Your task to perform on an android device: Search for seafood restaurants on Google Maps Image 0: 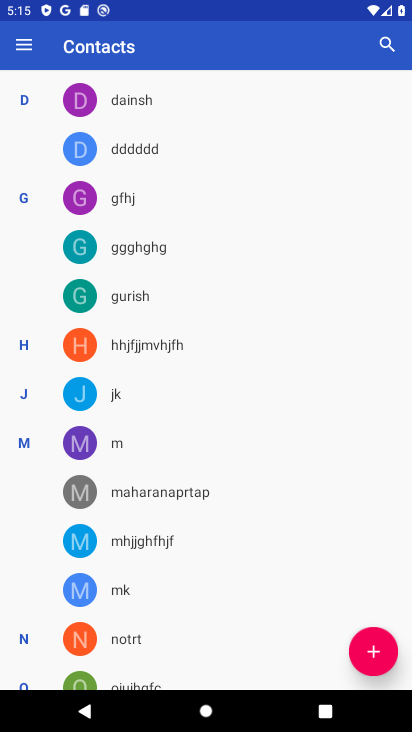
Step 0: press home button
Your task to perform on an android device: Search for seafood restaurants on Google Maps Image 1: 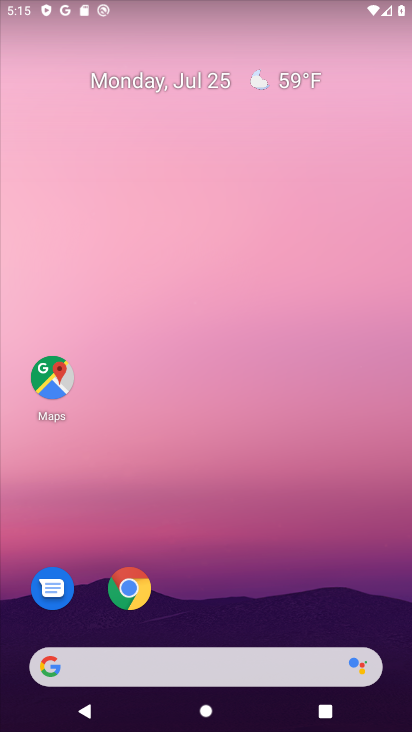
Step 1: click (55, 381)
Your task to perform on an android device: Search for seafood restaurants on Google Maps Image 2: 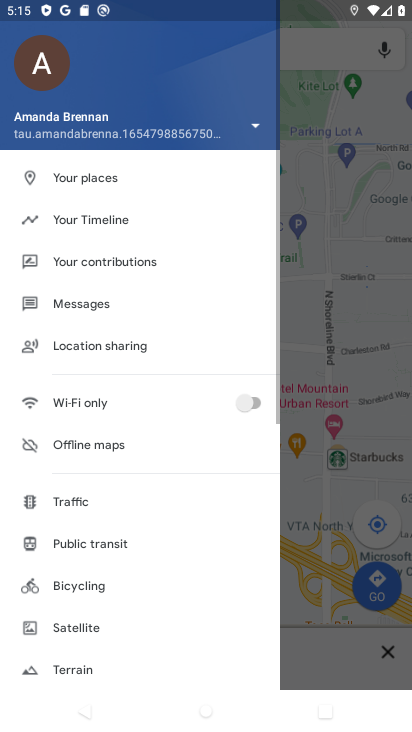
Step 2: click (315, 167)
Your task to perform on an android device: Search for seafood restaurants on Google Maps Image 3: 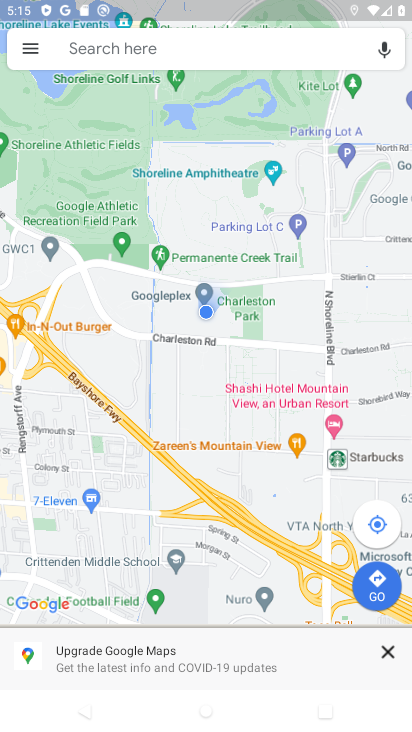
Step 3: click (214, 50)
Your task to perform on an android device: Search for seafood restaurants on Google Maps Image 4: 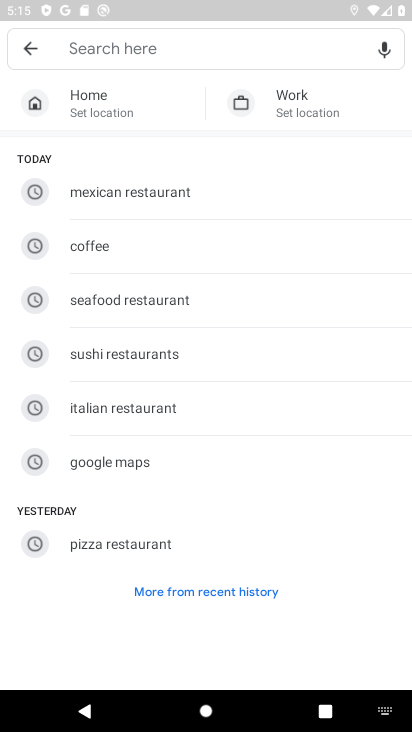
Step 4: type " seafood restaurants "
Your task to perform on an android device: Search for seafood restaurants on Google Maps Image 5: 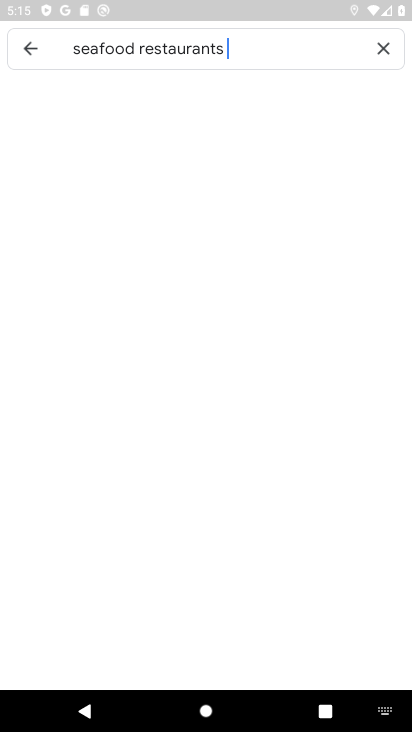
Step 5: press enter
Your task to perform on an android device: Search for seafood restaurants on Google Maps Image 6: 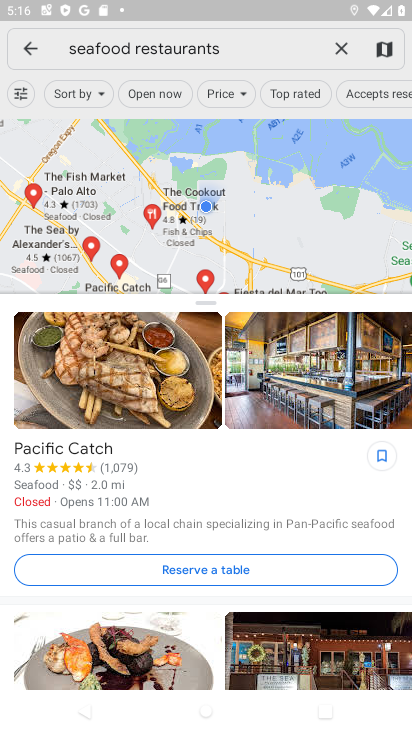
Step 6: task complete